Your task to perform on an android device: check storage Image 0: 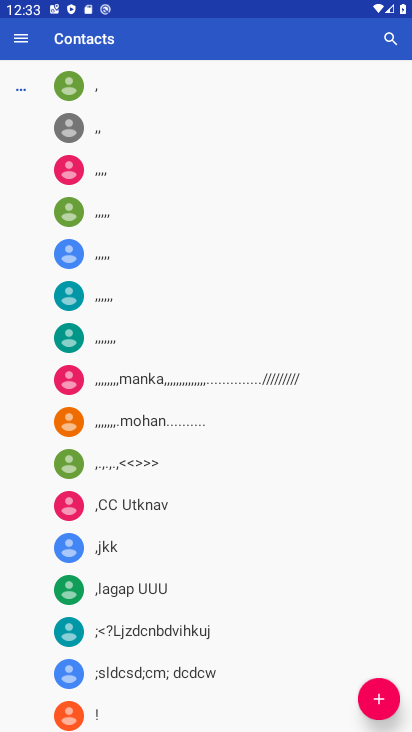
Step 0: press home button
Your task to perform on an android device: check storage Image 1: 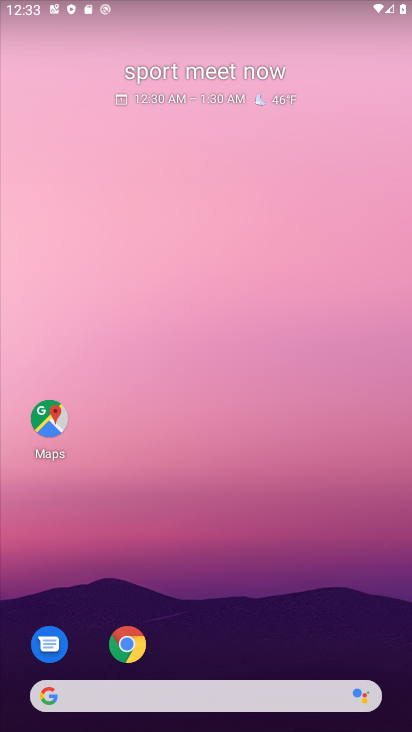
Step 1: drag from (19, 521) to (208, 183)
Your task to perform on an android device: check storage Image 2: 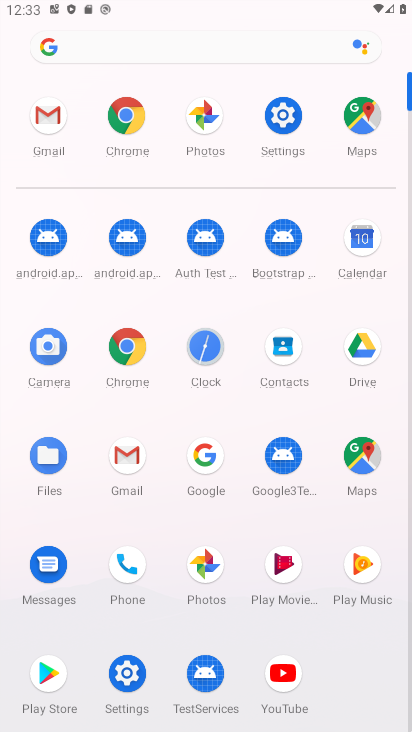
Step 2: click (282, 120)
Your task to perform on an android device: check storage Image 3: 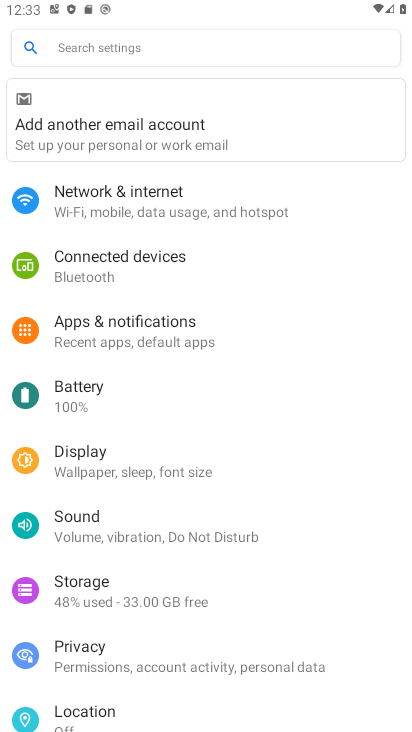
Step 3: click (113, 597)
Your task to perform on an android device: check storage Image 4: 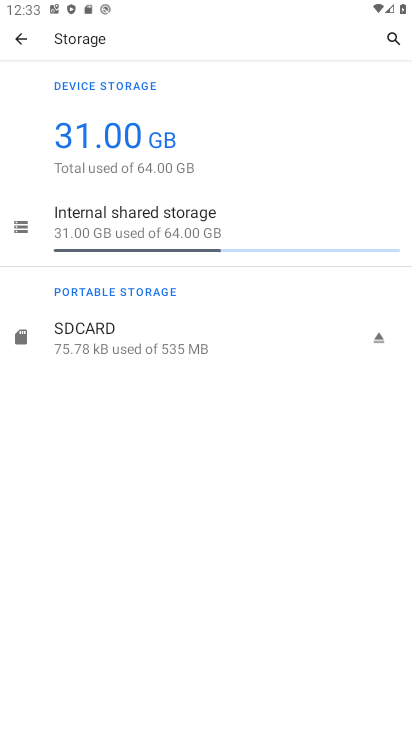
Step 4: task complete